Your task to perform on an android device: Open calendar and show me the third week of next month Image 0: 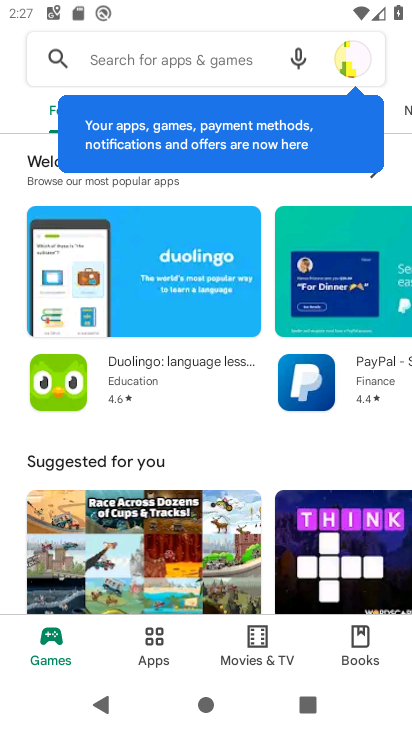
Step 0: press home button
Your task to perform on an android device: Open calendar and show me the third week of next month Image 1: 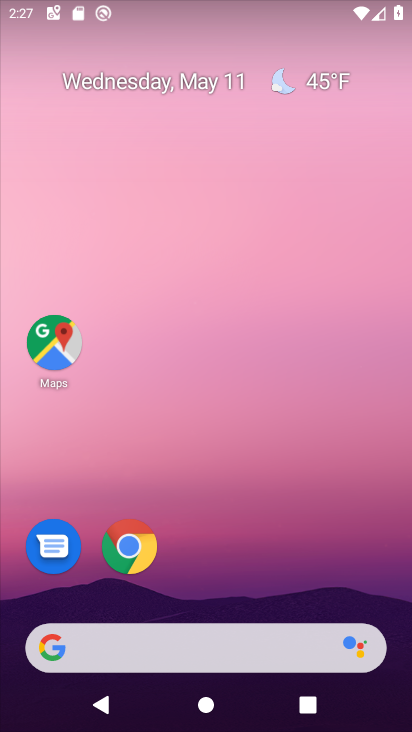
Step 1: drag from (243, 605) to (282, 30)
Your task to perform on an android device: Open calendar and show me the third week of next month Image 2: 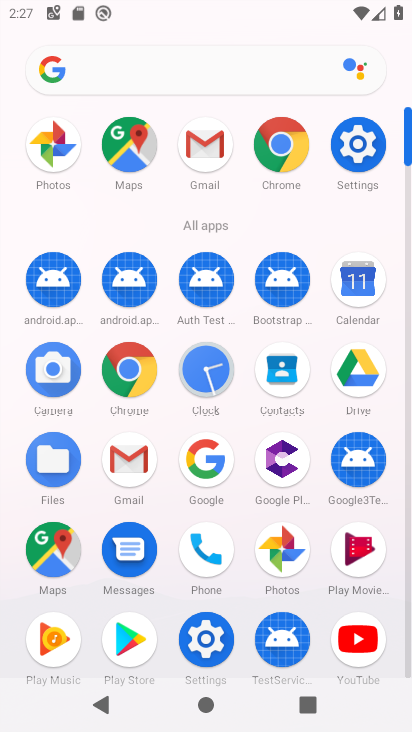
Step 2: click (363, 287)
Your task to perform on an android device: Open calendar and show me the third week of next month Image 3: 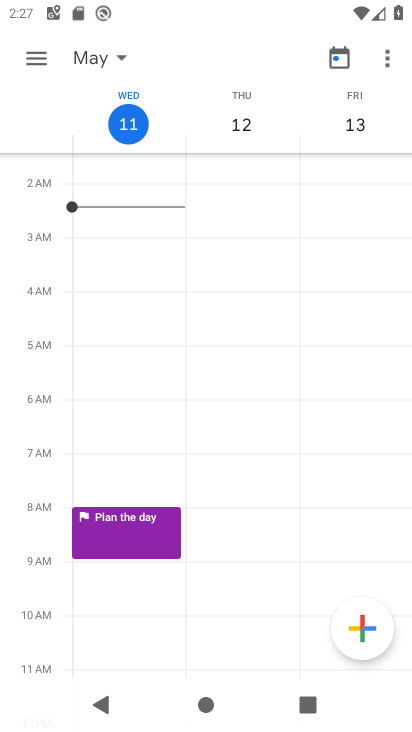
Step 3: click (46, 65)
Your task to perform on an android device: Open calendar and show me the third week of next month Image 4: 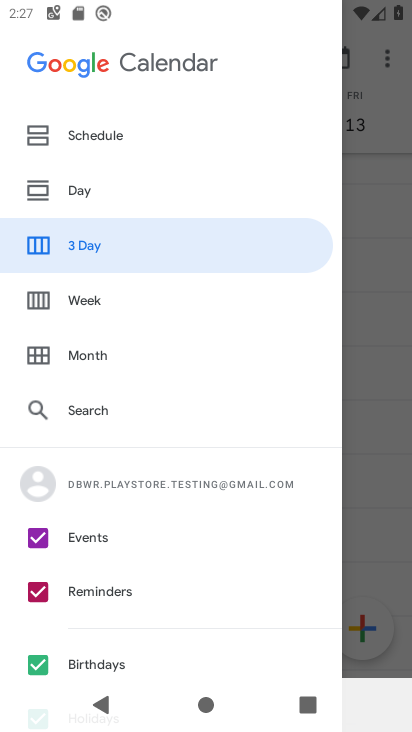
Step 4: click (88, 298)
Your task to perform on an android device: Open calendar and show me the third week of next month Image 5: 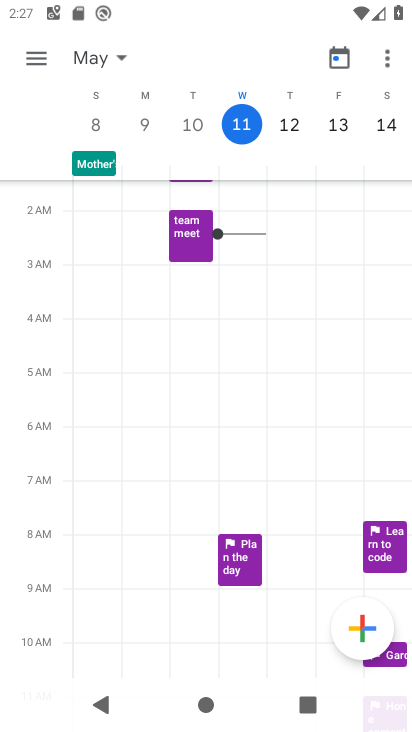
Step 5: task complete